Your task to perform on an android device: open chrome privacy settings Image 0: 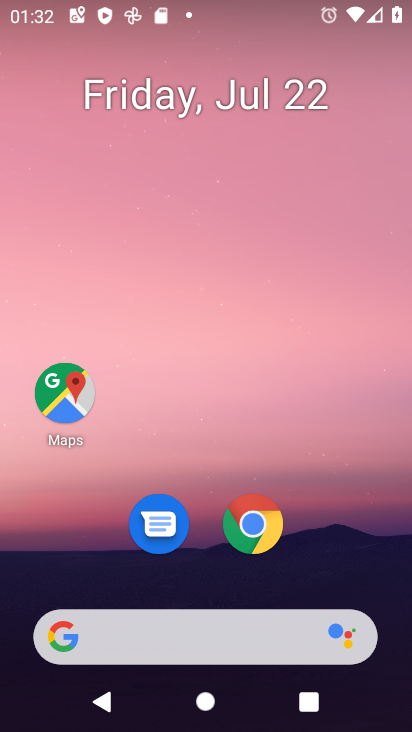
Step 0: click (248, 529)
Your task to perform on an android device: open chrome privacy settings Image 1: 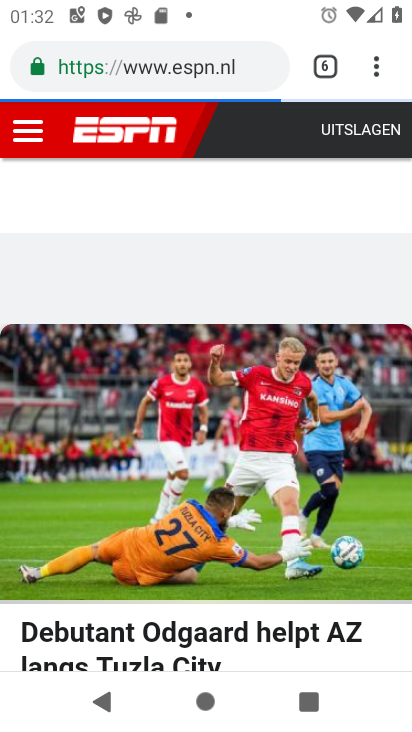
Step 1: drag from (371, 73) to (252, 528)
Your task to perform on an android device: open chrome privacy settings Image 2: 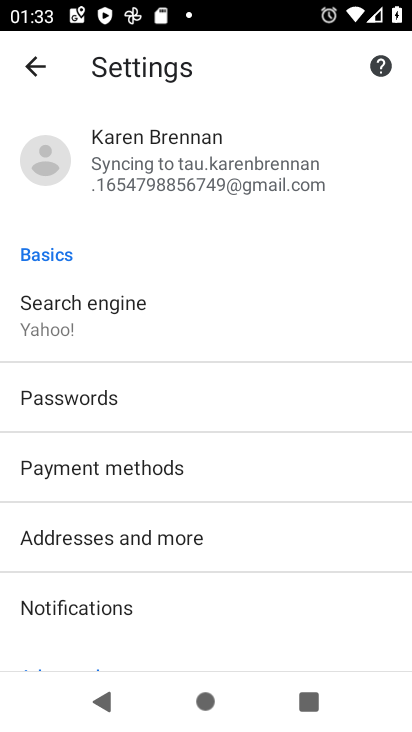
Step 2: drag from (168, 611) to (255, 226)
Your task to perform on an android device: open chrome privacy settings Image 3: 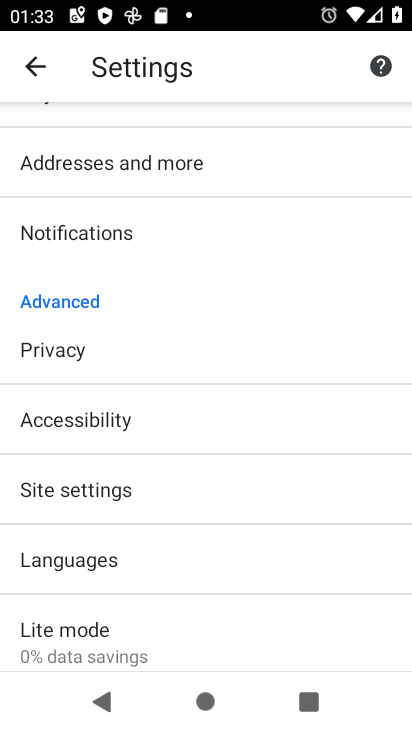
Step 3: click (70, 347)
Your task to perform on an android device: open chrome privacy settings Image 4: 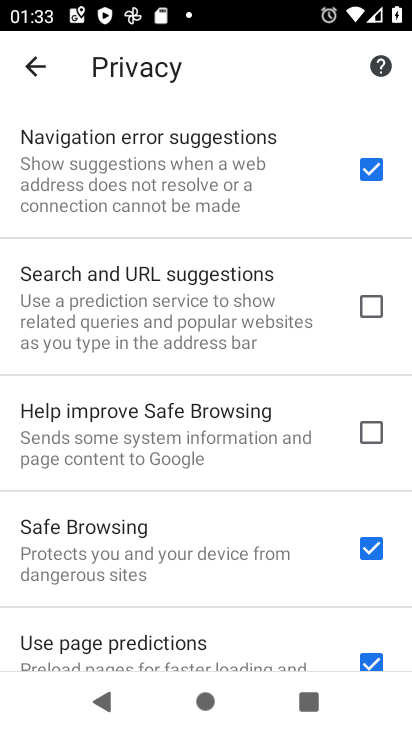
Step 4: task complete